Your task to perform on an android device: set the timer Image 0: 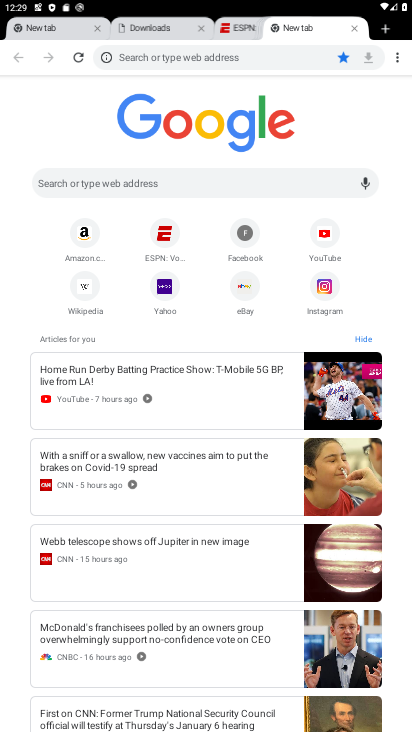
Step 0: press home button
Your task to perform on an android device: set the timer Image 1: 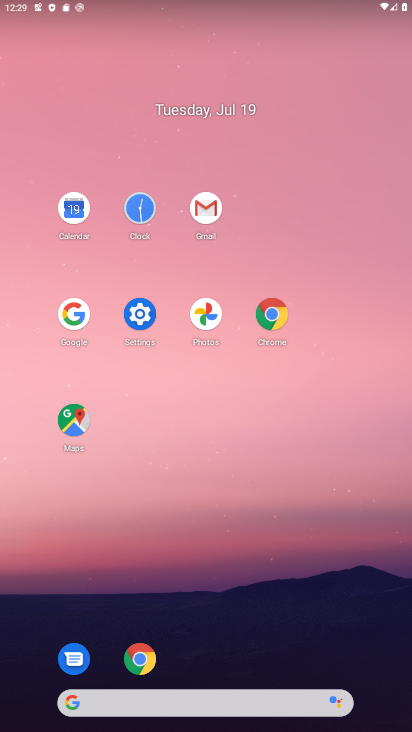
Step 1: click (138, 206)
Your task to perform on an android device: set the timer Image 2: 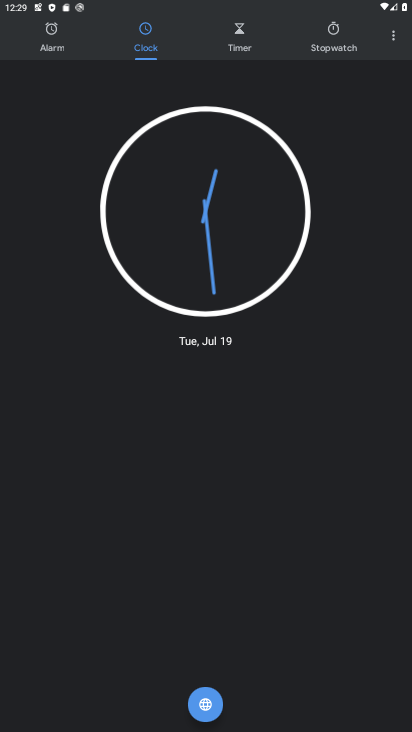
Step 2: click (222, 26)
Your task to perform on an android device: set the timer Image 3: 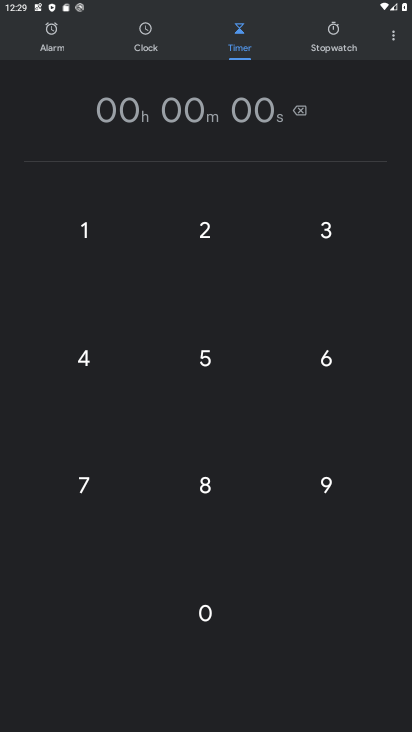
Step 3: click (208, 247)
Your task to perform on an android device: set the timer Image 4: 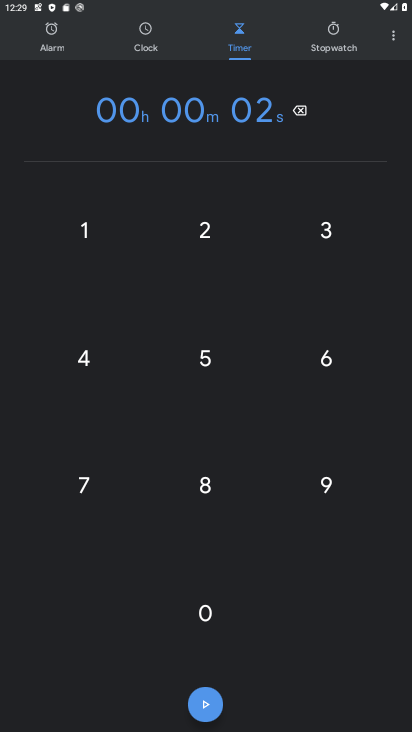
Step 4: click (212, 247)
Your task to perform on an android device: set the timer Image 5: 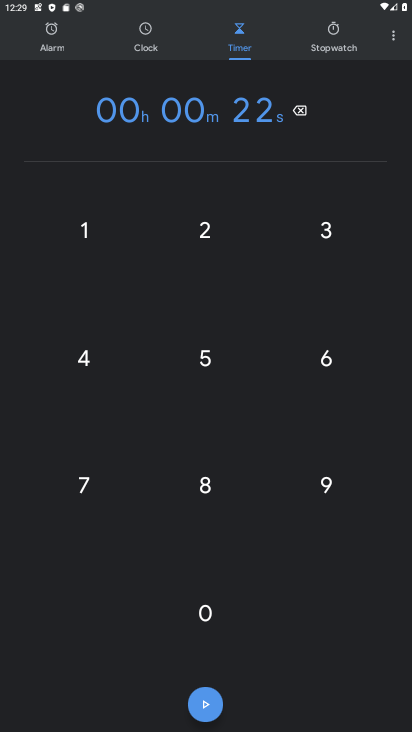
Step 5: click (198, 693)
Your task to perform on an android device: set the timer Image 6: 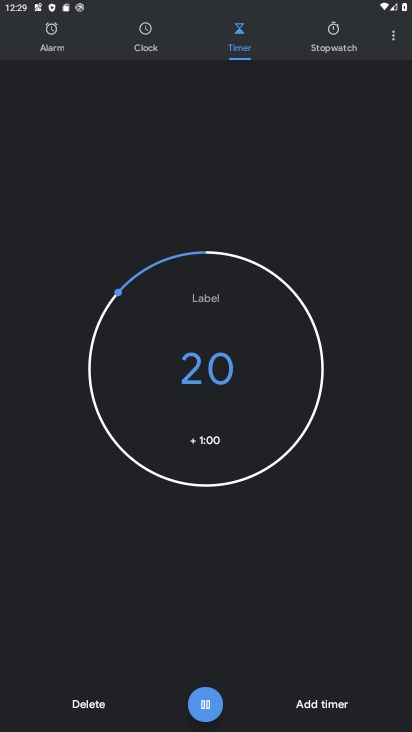
Step 6: task complete